Your task to perform on an android device: Open Youtube and go to the subscriptions tab Image 0: 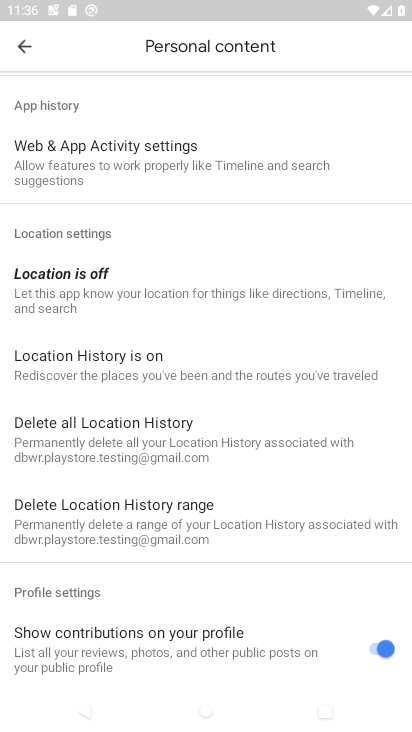
Step 0: press home button
Your task to perform on an android device: Open Youtube and go to the subscriptions tab Image 1: 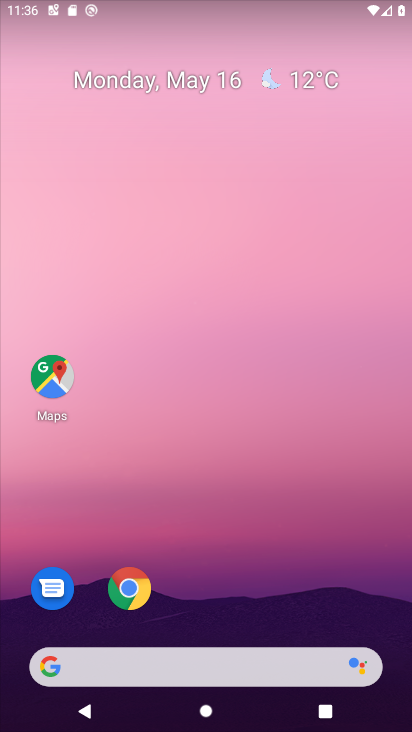
Step 1: drag from (214, 617) to (273, 8)
Your task to perform on an android device: Open Youtube and go to the subscriptions tab Image 2: 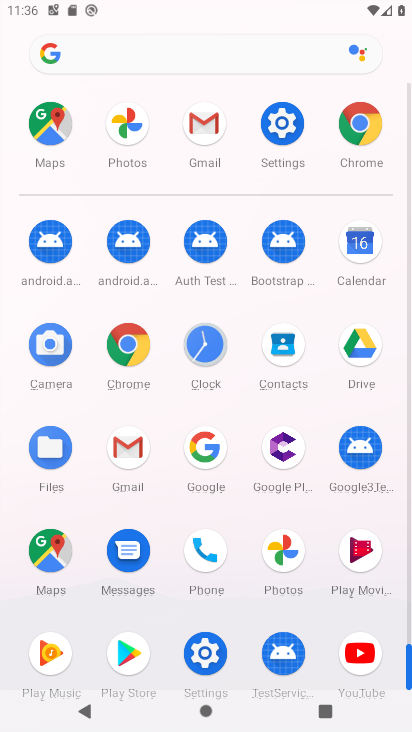
Step 2: click (357, 648)
Your task to perform on an android device: Open Youtube and go to the subscriptions tab Image 3: 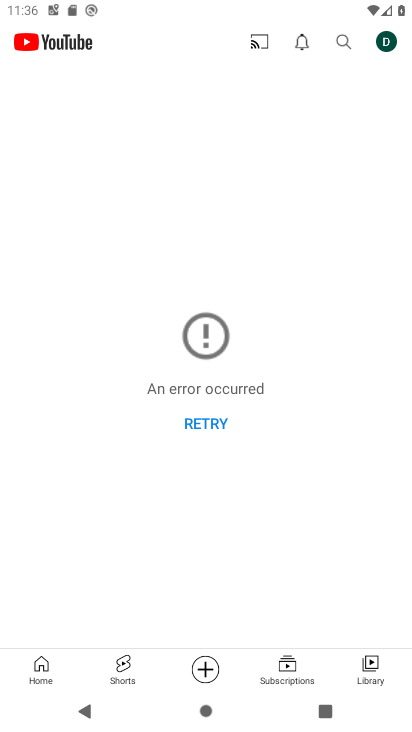
Step 3: click (284, 657)
Your task to perform on an android device: Open Youtube and go to the subscriptions tab Image 4: 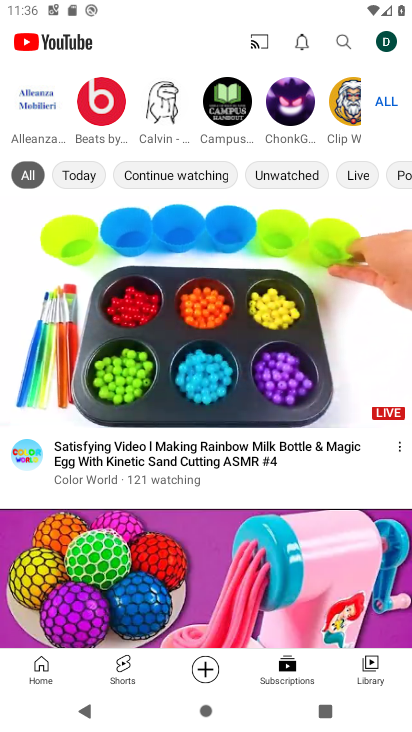
Step 4: task complete